Your task to perform on an android device: Show me the alarms in the clock app Image 0: 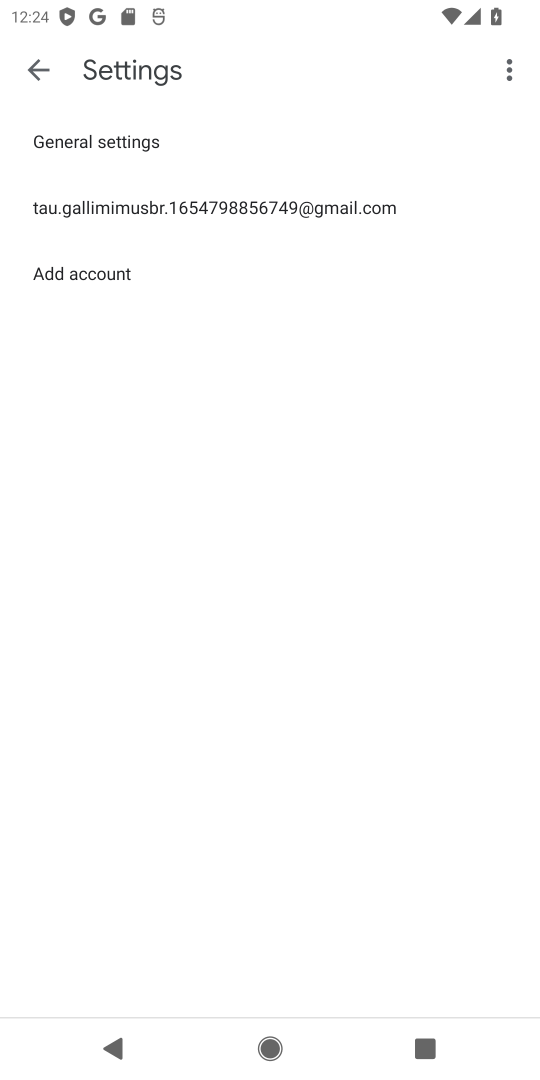
Step 0: press home button
Your task to perform on an android device: Show me the alarms in the clock app Image 1: 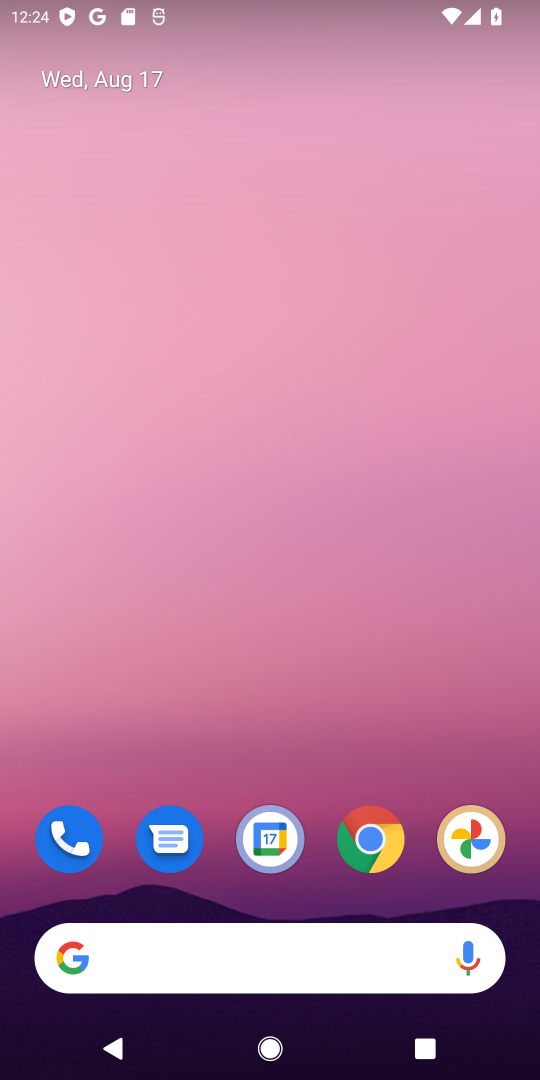
Step 1: drag from (193, 963) to (393, 321)
Your task to perform on an android device: Show me the alarms in the clock app Image 2: 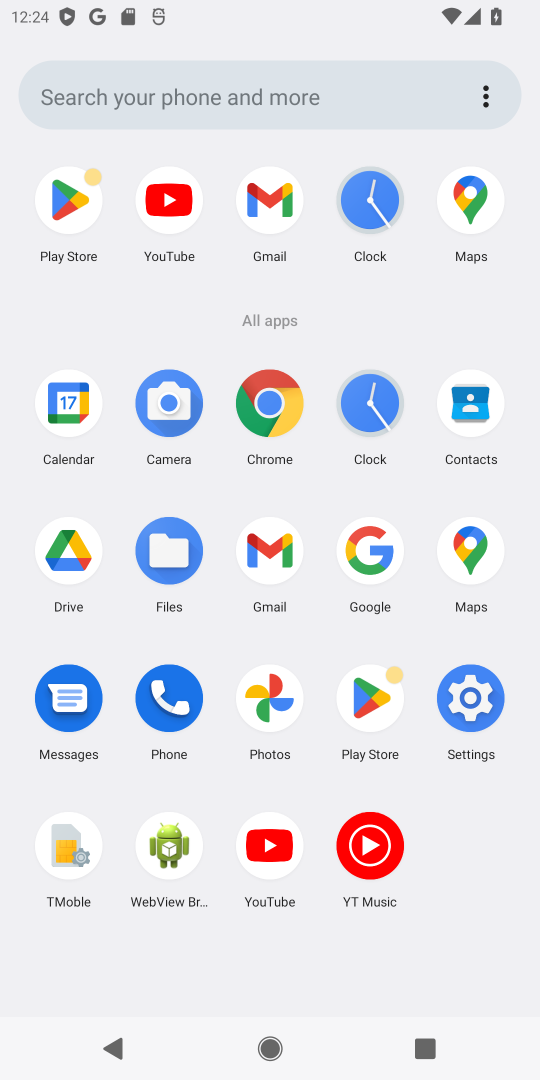
Step 2: click (370, 205)
Your task to perform on an android device: Show me the alarms in the clock app Image 3: 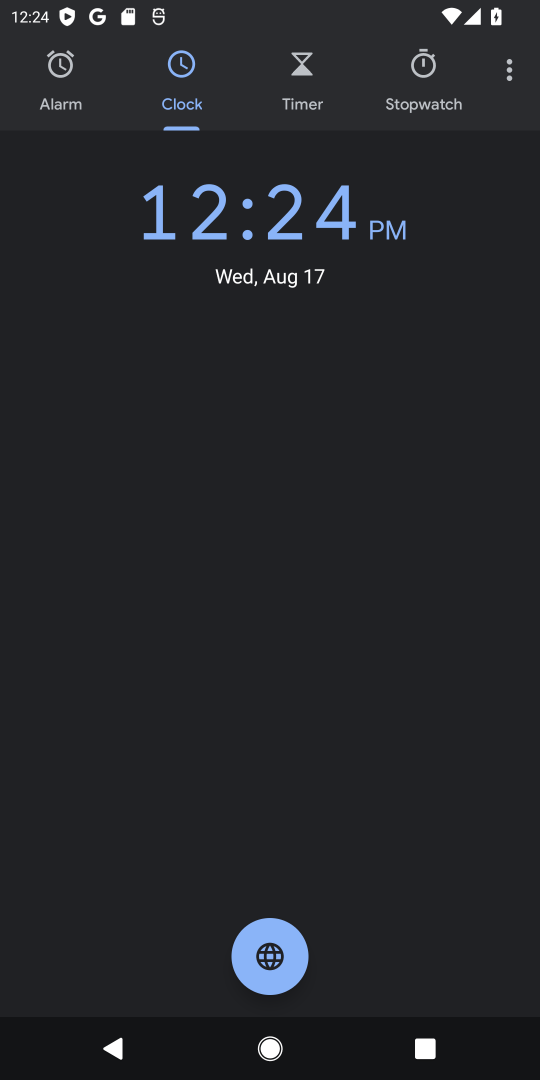
Step 3: click (59, 69)
Your task to perform on an android device: Show me the alarms in the clock app Image 4: 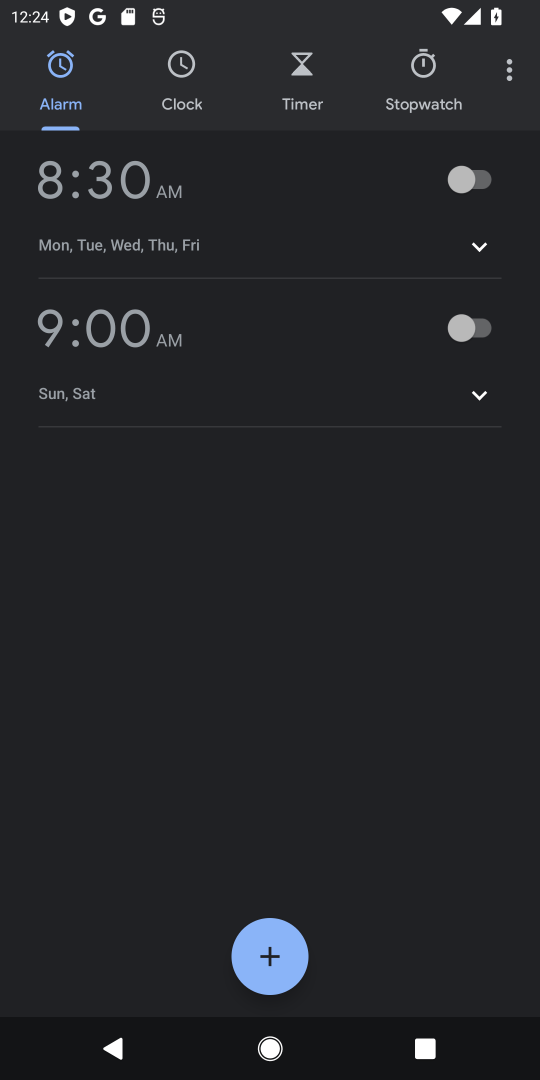
Step 4: click (131, 193)
Your task to perform on an android device: Show me the alarms in the clock app Image 5: 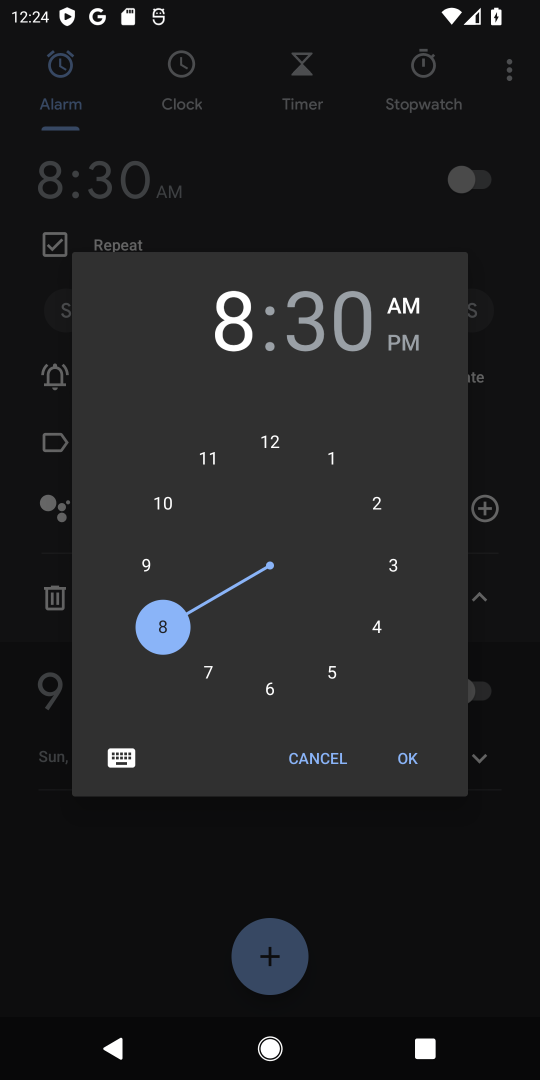
Step 5: click (338, 672)
Your task to perform on an android device: Show me the alarms in the clock app Image 6: 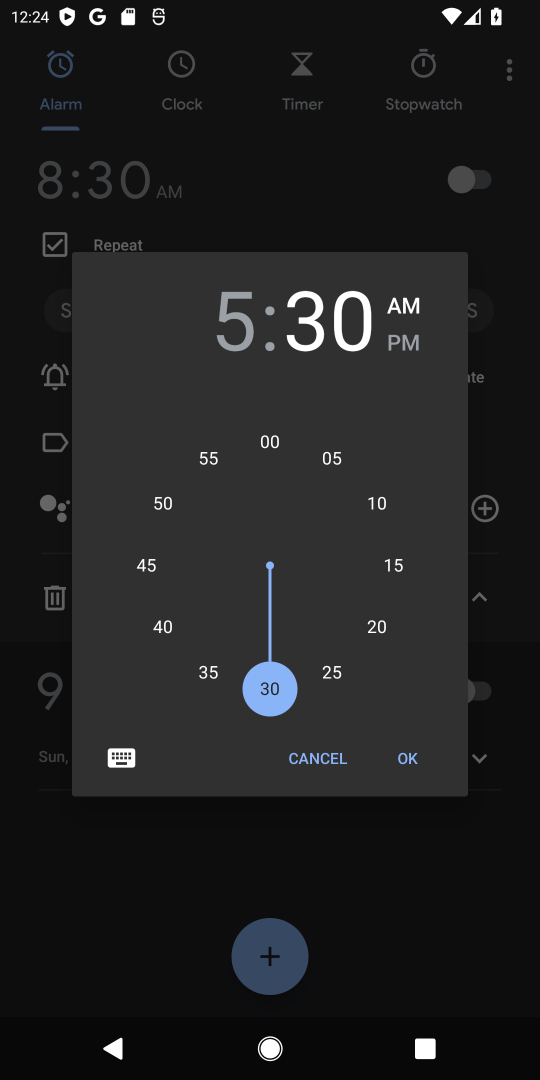
Step 6: click (390, 589)
Your task to perform on an android device: Show me the alarms in the clock app Image 7: 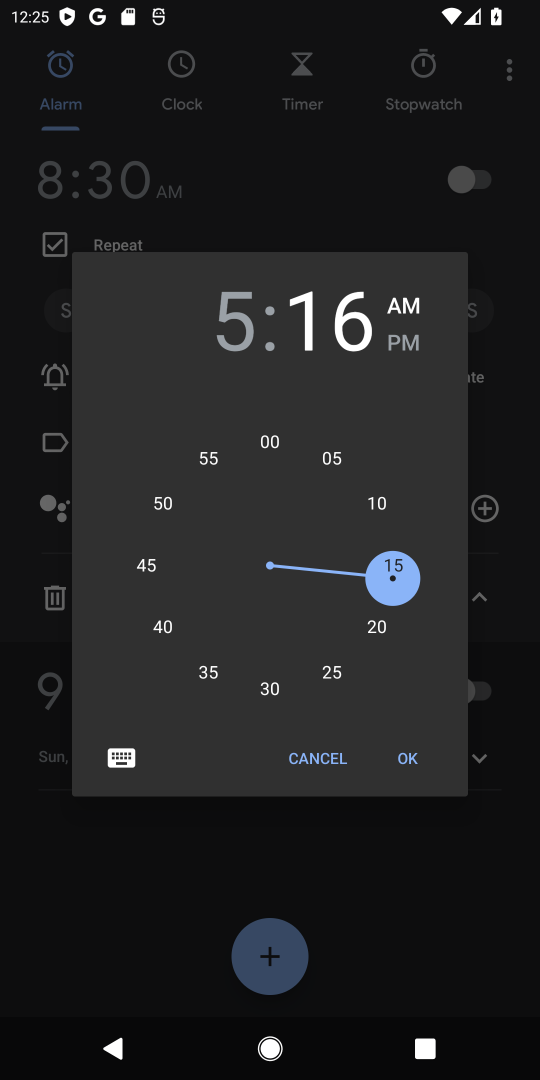
Step 7: click (394, 354)
Your task to perform on an android device: Show me the alarms in the clock app Image 8: 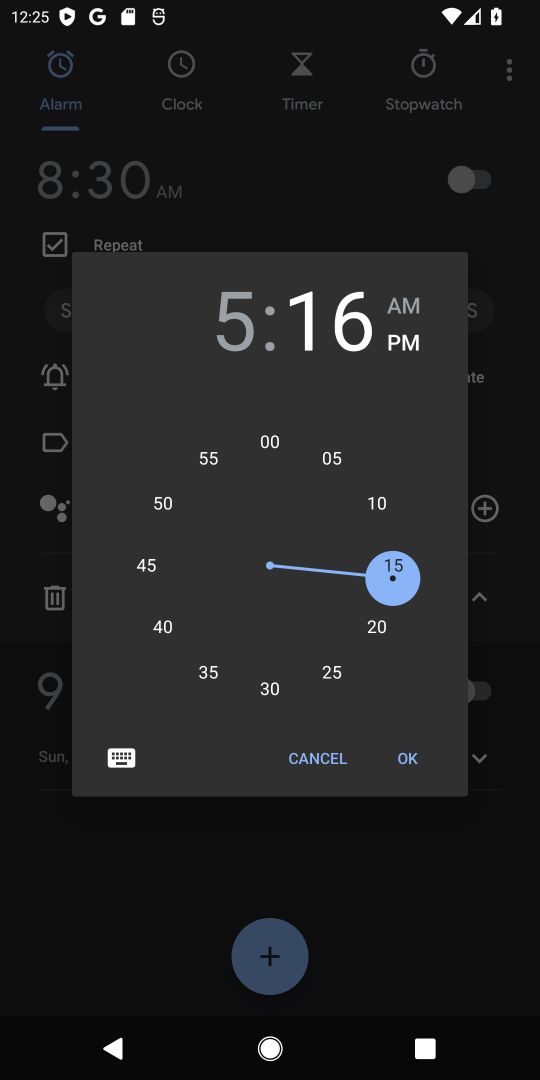
Step 8: click (406, 771)
Your task to perform on an android device: Show me the alarms in the clock app Image 9: 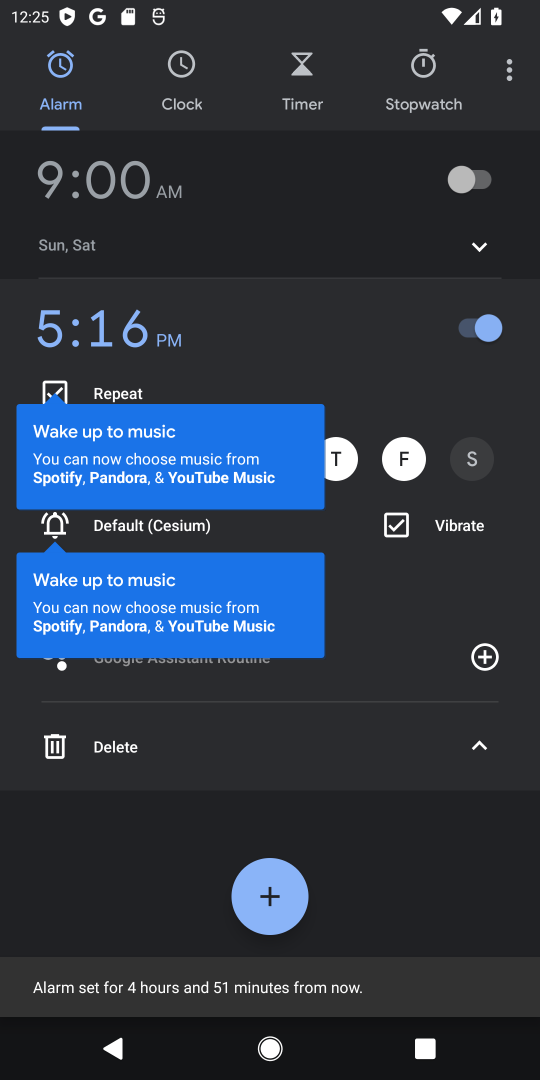
Step 9: click (476, 751)
Your task to perform on an android device: Show me the alarms in the clock app Image 10: 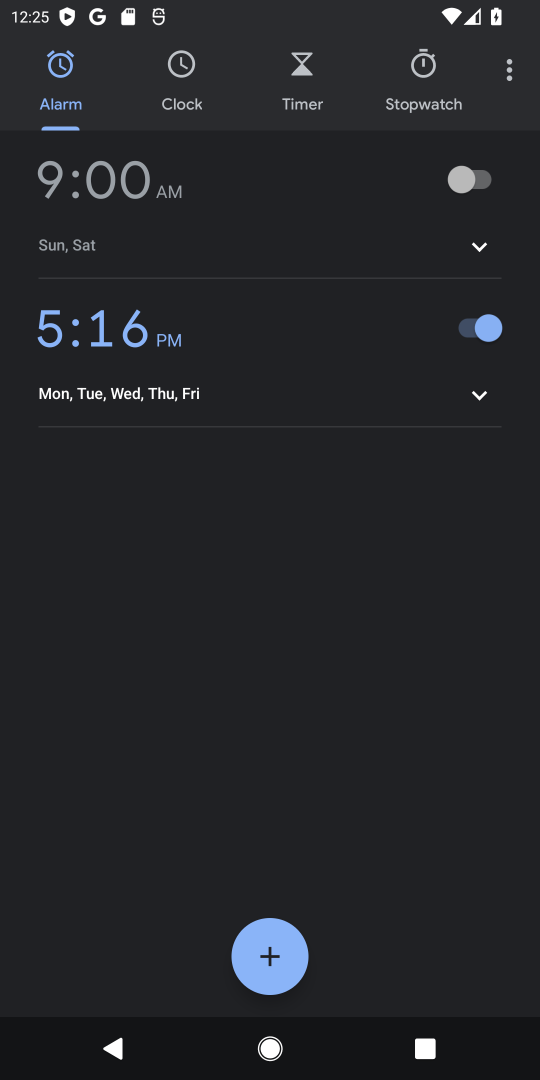
Step 10: task complete